Your task to perform on an android device: make emails show in primary in the gmail app Image 0: 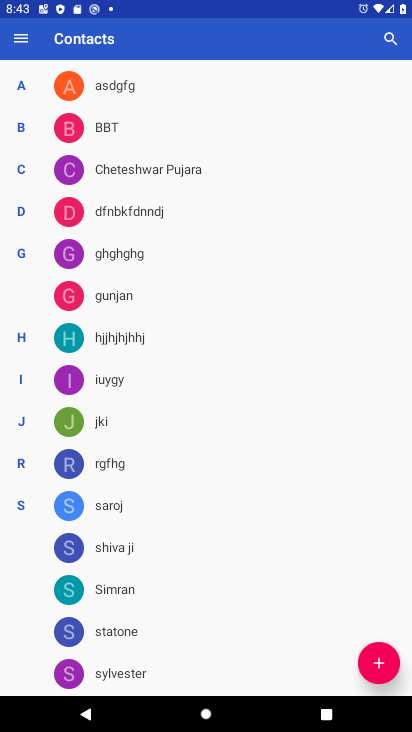
Step 0: press home button
Your task to perform on an android device: make emails show in primary in the gmail app Image 1: 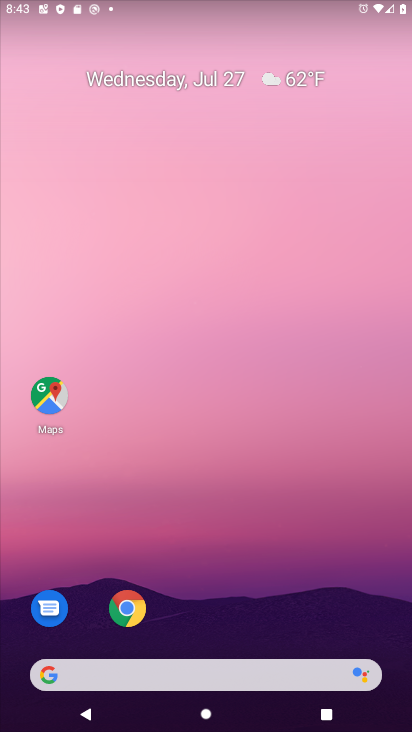
Step 1: drag from (277, 579) to (319, 150)
Your task to perform on an android device: make emails show in primary in the gmail app Image 2: 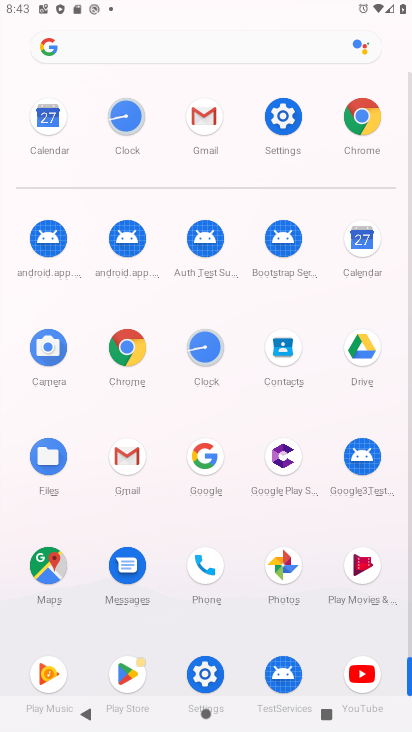
Step 2: click (201, 119)
Your task to perform on an android device: make emails show in primary in the gmail app Image 3: 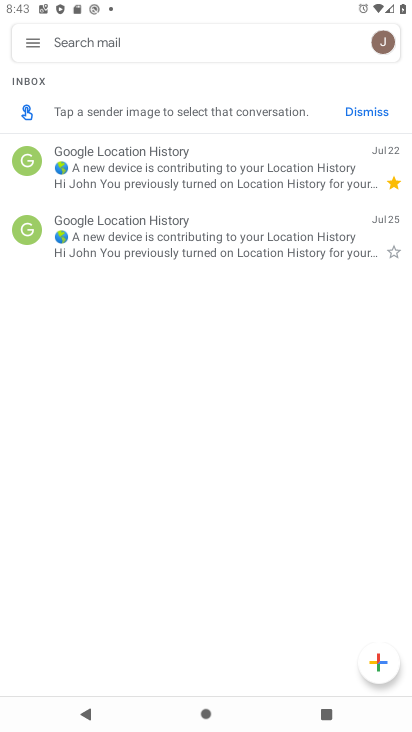
Step 3: task complete